Your task to perform on an android device: open the mobile data screen to see how much data has been used Image 0: 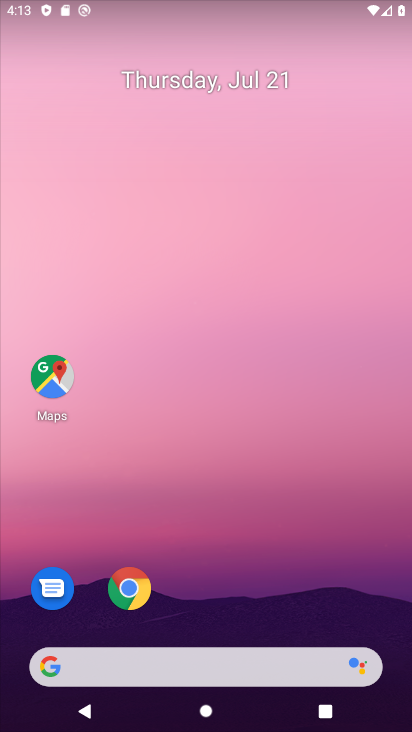
Step 0: drag from (279, 486) to (283, 156)
Your task to perform on an android device: open the mobile data screen to see how much data has been used Image 1: 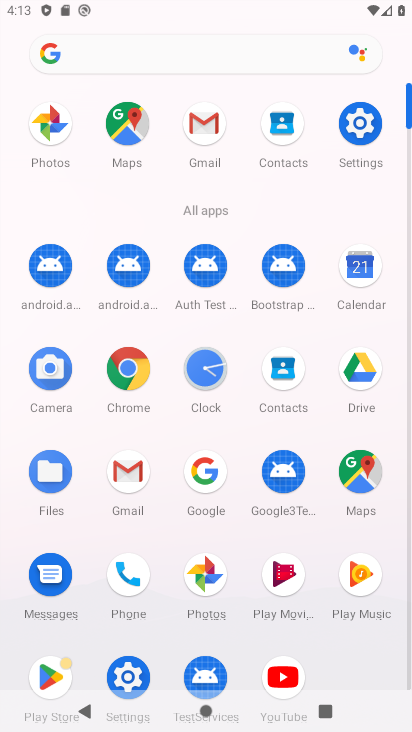
Step 1: click (131, 467)
Your task to perform on an android device: open the mobile data screen to see how much data has been used Image 2: 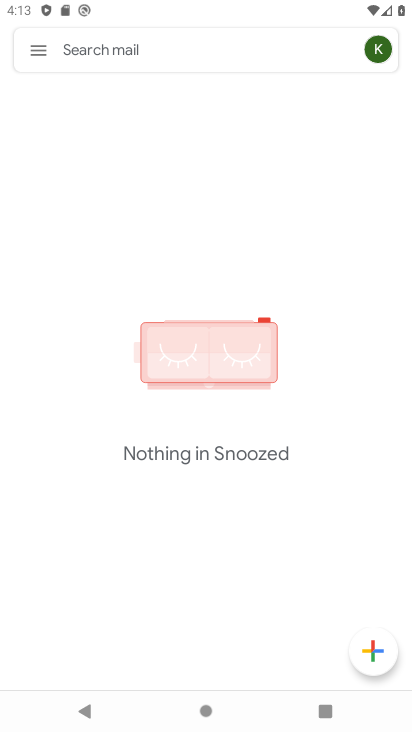
Step 2: click (40, 43)
Your task to perform on an android device: open the mobile data screen to see how much data has been used Image 3: 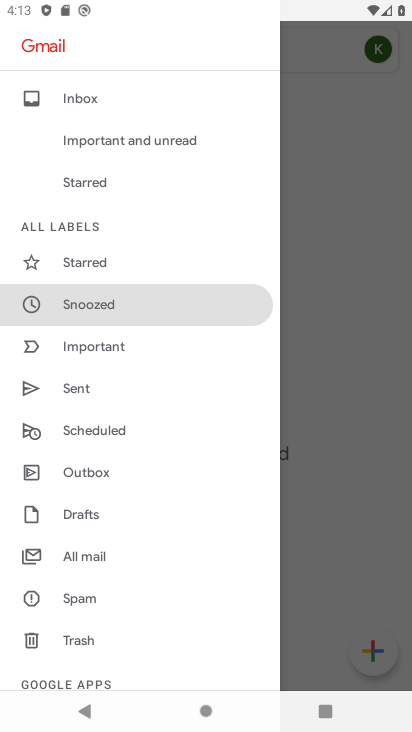
Step 3: press home button
Your task to perform on an android device: open the mobile data screen to see how much data has been used Image 4: 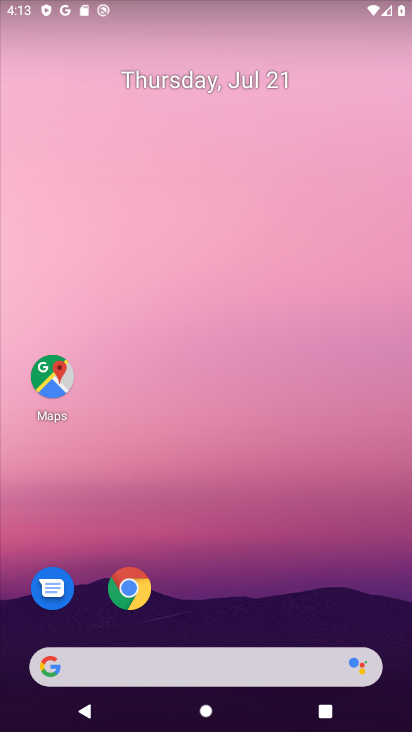
Step 4: drag from (206, 514) to (168, 29)
Your task to perform on an android device: open the mobile data screen to see how much data has been used Image 5: 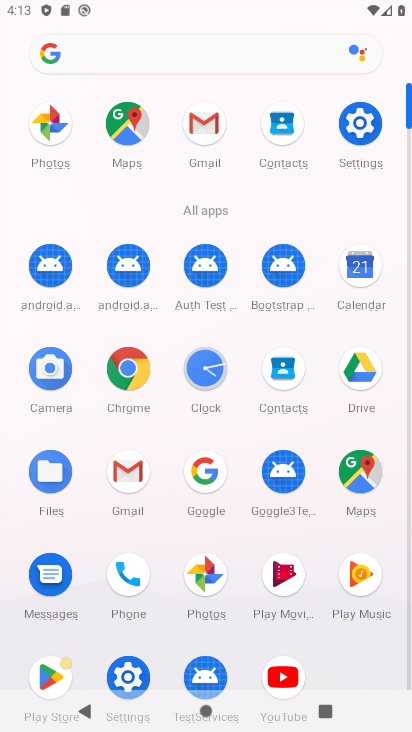
Step 5: click (356, 136)
Your task to perform on an android device: open the mobile data screen to see how much data has been used Image 6: 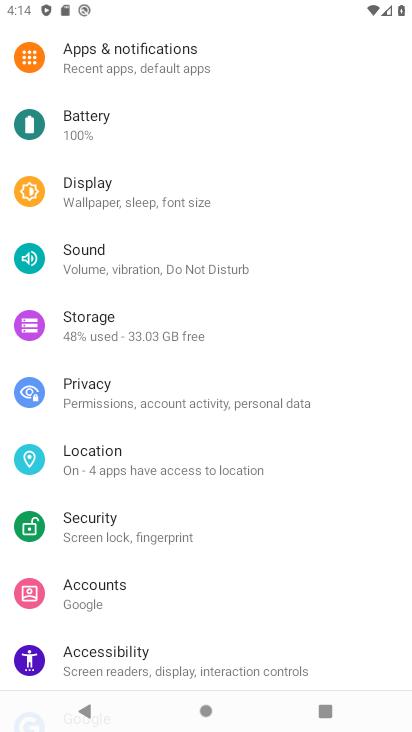
Step 6: drag from (189, 242) to (188, 376)
Your task to perform on an android device: open the mobile data screen to see how much data has been used Image 7: 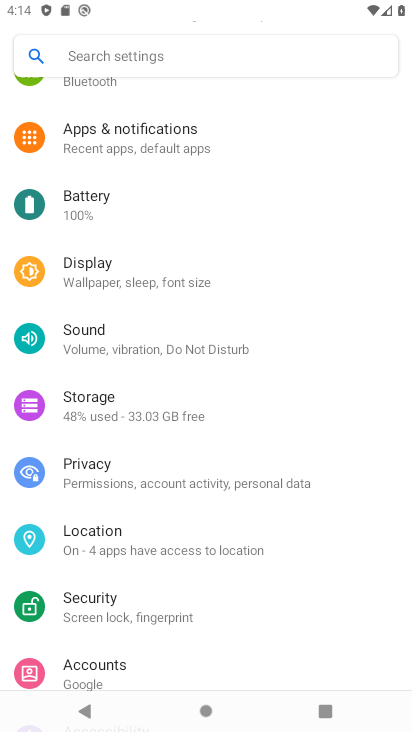
Step 7: drag from (198, 143) to (218, 392)
Your task to perform on an android device: open the mobile data screen to see how much data has been used Image 8: 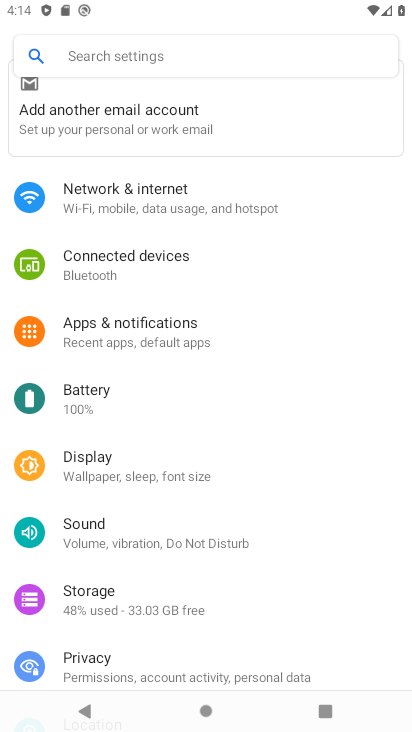
Step 8: click (184, 192)
Your task to perform on an android device: open the mobile data screen to see how much data has been used Image 9: 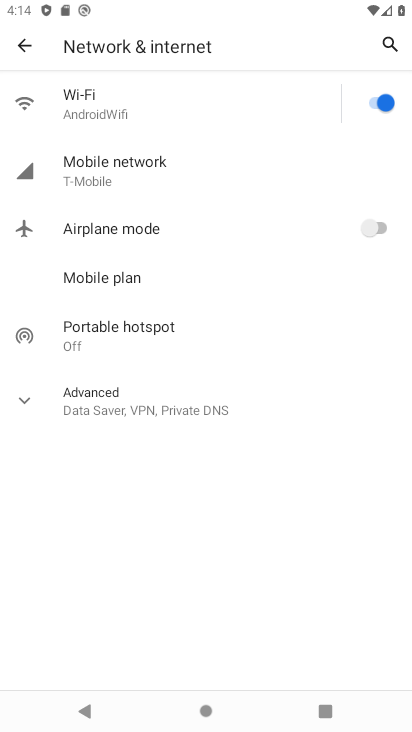
Step 9: click (124, 280)
Your task to perform on an android device: open the mobile data screen to see how much data has been used Image 10: 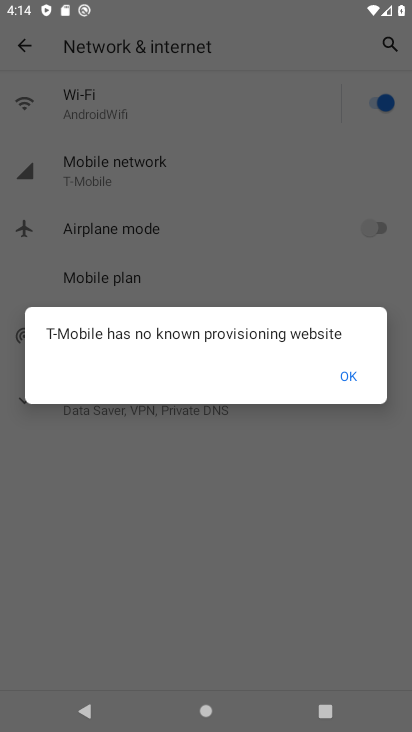
Step 10: click (359, 377)
Your task to perform on an android device: open the mobile data screen to see how much data has been used Image 11: 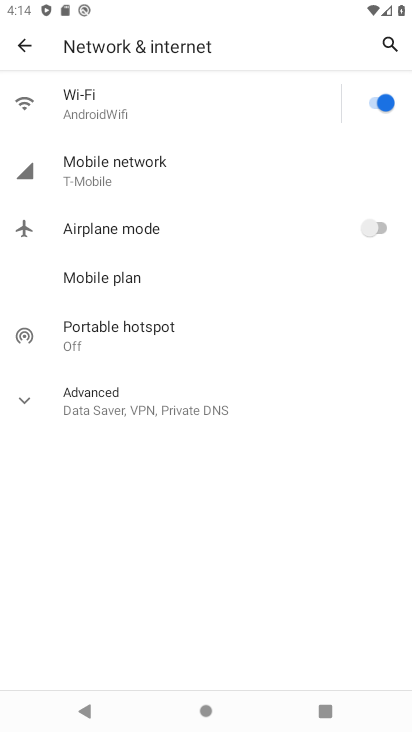
Step 11: task complete